Your task to perform on an android device: allow cookies in the chrome app Image 0: 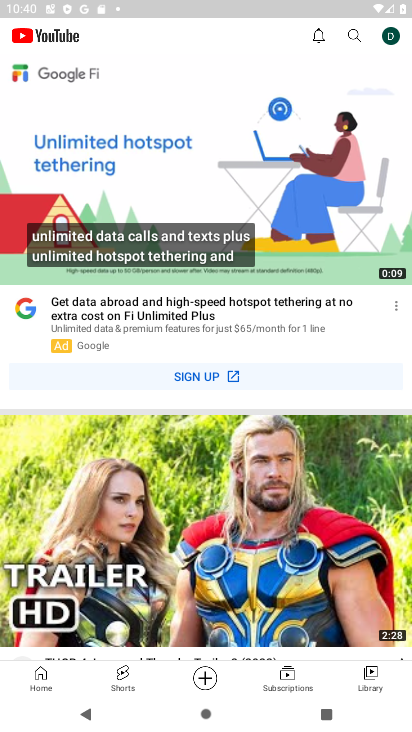
Step 0: press home button
Your task to perform on an android device: allow cookies in the chrome app Image 1: 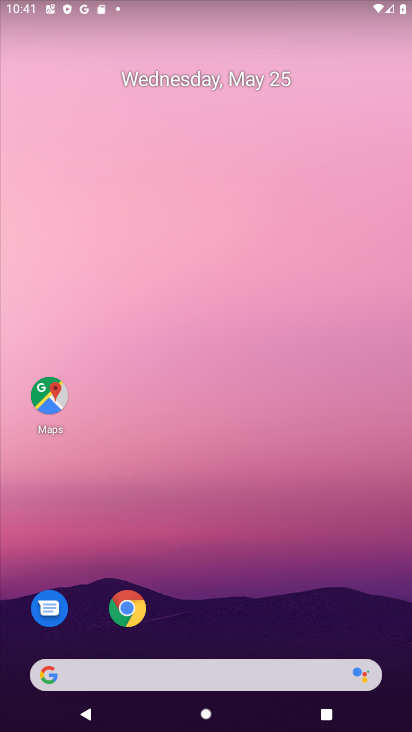
Step 1: click (107, 605)
Your task to perform on an android device: allow cookies in the chrome app Image 2: 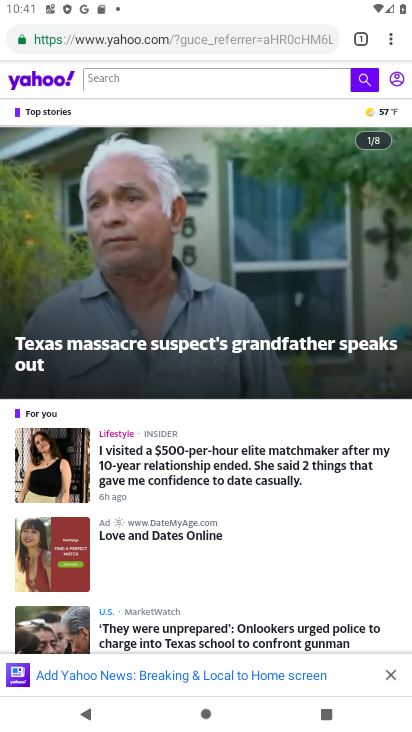
Step 2: click (387, 33)
Your task to perform on an android device: allow cookies in the chrome app Image 3: 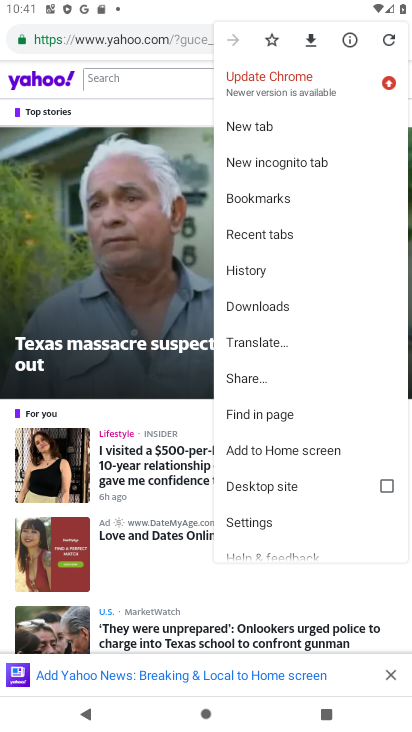
Step 3: click (275, 518)
Your task to perform on an android device: allow cookies in the chrome app Image 4: 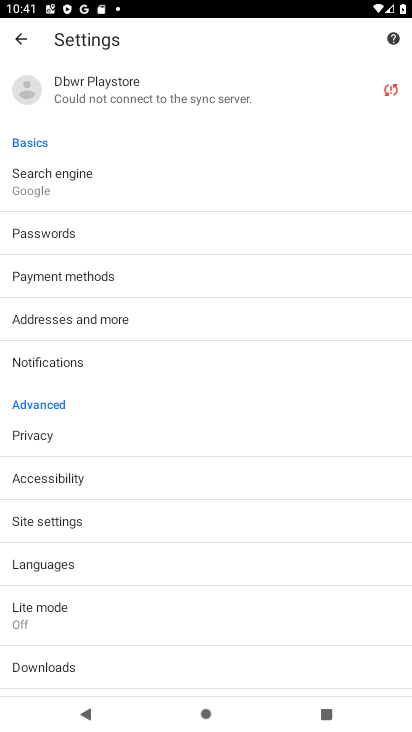
Step 4: click (66, 524)
Your task to perform on an android device: allow cookies in the chrome app Image 5: 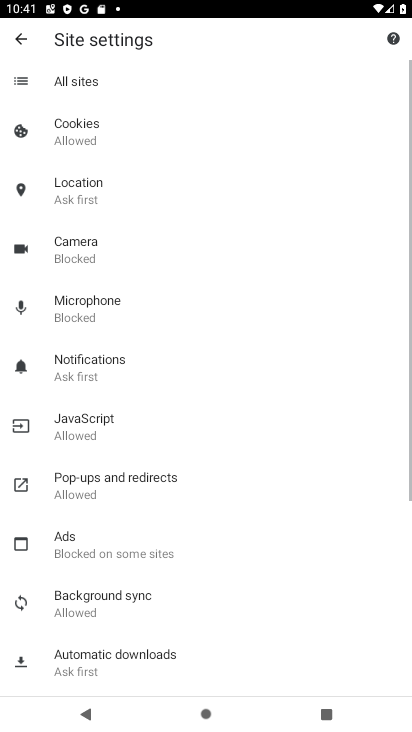
Step 5: click (83, 146)
Your task to perform on an android device: allow cookies in the chrome app Image 6: 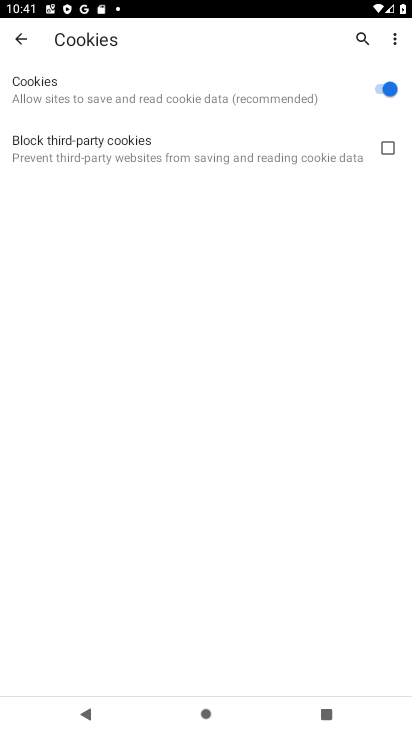
Step 6: task complete